Your task to perform on an android device: Open calendar and show me the fourth week of next month Image 0: 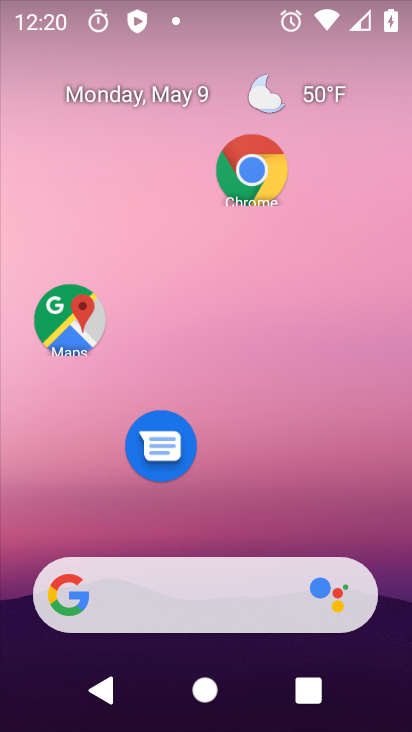
Step 0: drag from (302, 503) to (327, 22)
Your task to perform on an android device: Open calendar and show me the fourth week of next month Image 1: 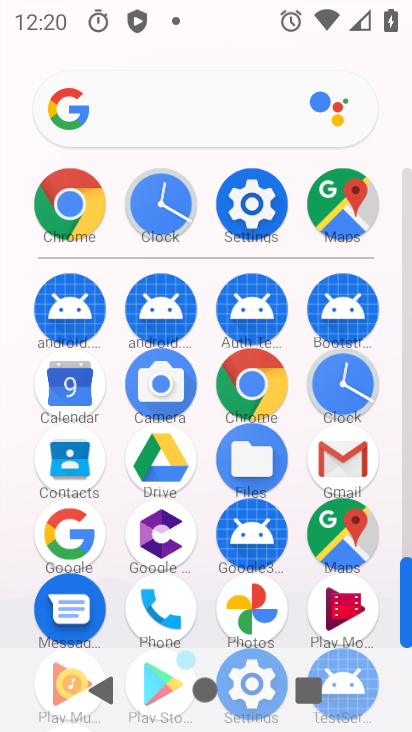
Step 1: click (53, 404)
Your task to perform on an android device: Open calendar and show me the fourth week of next month Image 2: 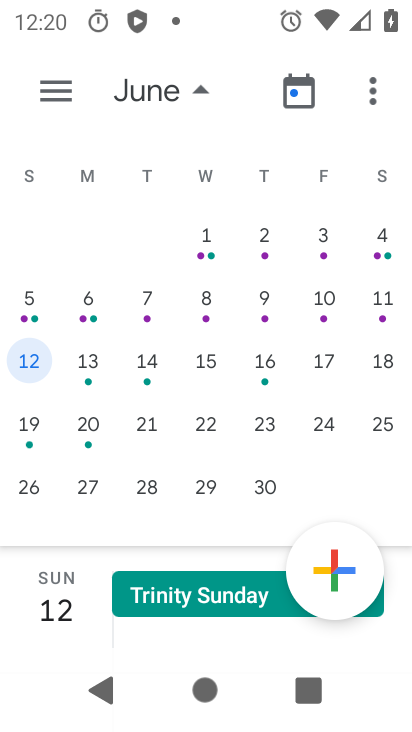
Step 2: click (35, 436)
Your task to perform on an android device: Open calendar and show me the fourth week of next month Image 3: 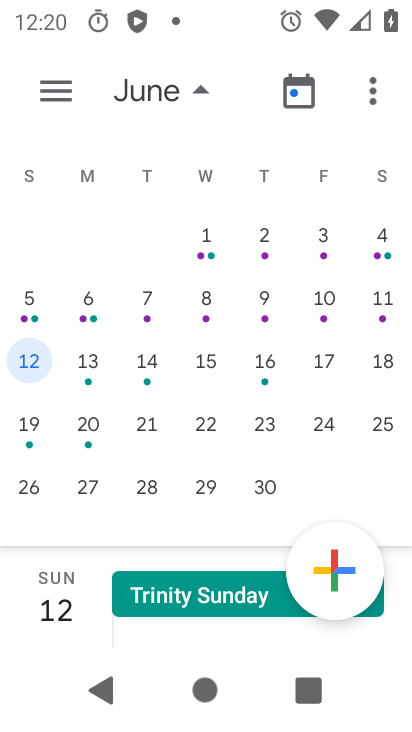
Step 3: click (38, 443)
Your task to perform on an android device: Open calendar and show me the fourth week of next month Image 4: 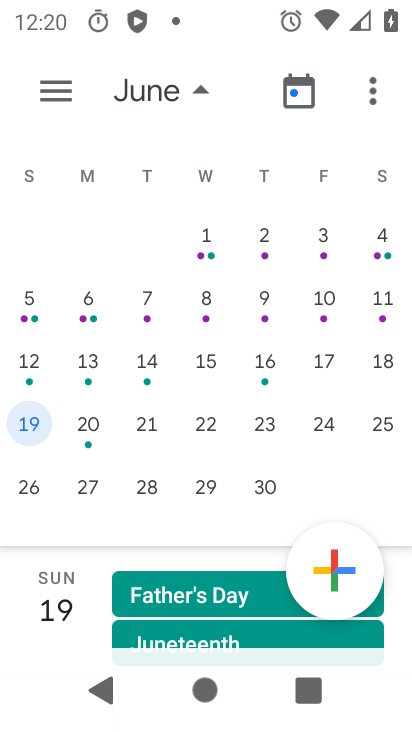
Step 4: task complete